Your task to perform on an android device: choose inbox layout in the gmail app Image 0: 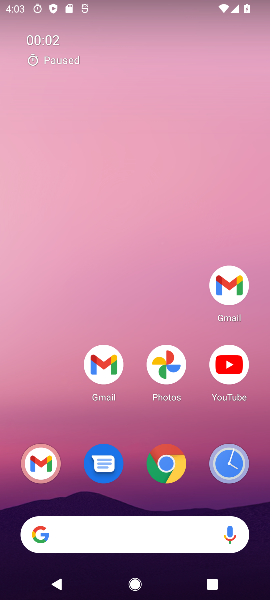
Step 0: press back button
Your task to perform on an android device: choose inbox layout in the gmail app Image 1: 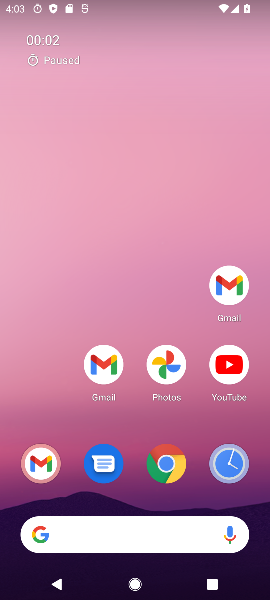
Step 1: drag from (186, 511) to (109, 215)
Your task to perform on an android device: choose inbox layout in the gmail app Image 2: 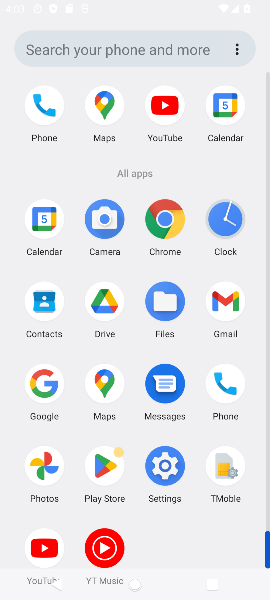
Step 2: drag from (154, 421) to (149, 256)
Your task to perform on an android device: choose inbox layout in the gmail app Image 3: 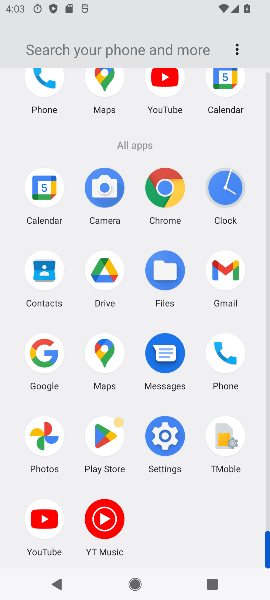
Step 3: drag from (168, 456) to (157, 240)
Your task to perform on an android device: choose inbox layout in the gmail app Image 4: 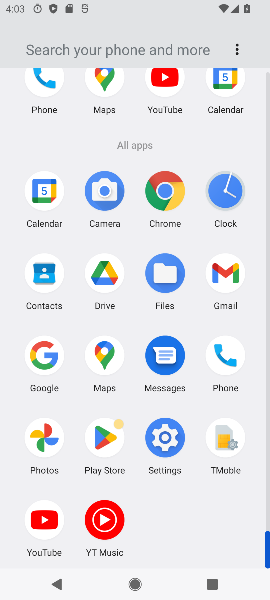
Step 4: click (213, 270)
Your task to perform on an android device: choose inbox layout in the gmail app Image 5: 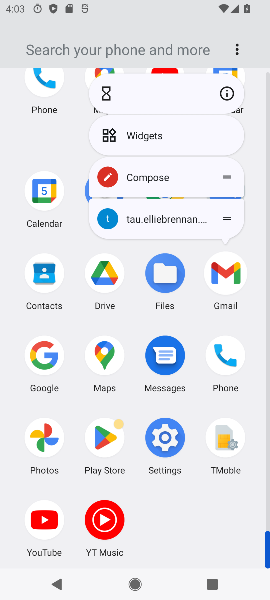
Step 5: click (213, 270)
Your task to perform on an android device: choose inbox layout in the gmail app Image 6: 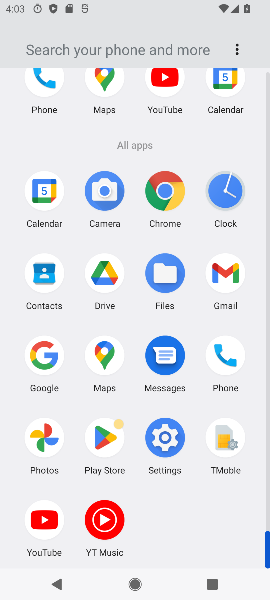
Step 6: click (213, 270)
Your task to perform on an android device: choose inbox layout in the gmail app Image 7: 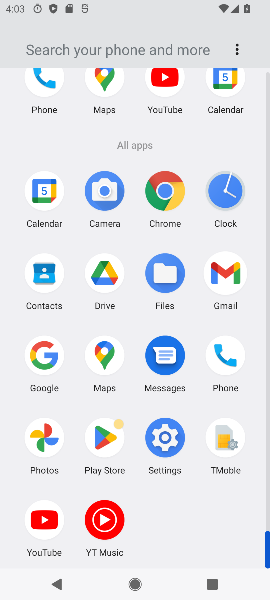
Step 7: click (214, 270)
Your task to perform on an android device: choose inbox layout in the gmail app Image 8: 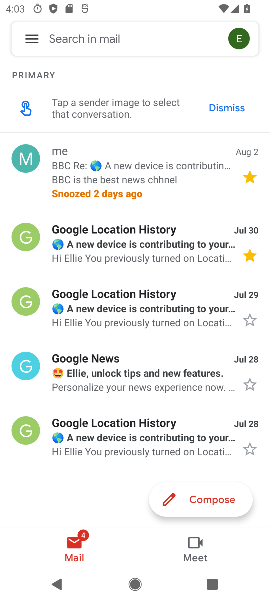
Step 8: click (216, 272)
Your task to perform on an android device: choose inbox layout in the gmail app Image 9: 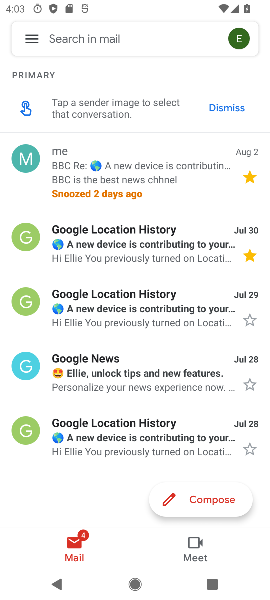
Step 9: click (227, 273)
Your task to perform on an android device: choose inbox layout in the gmail app Image 10: 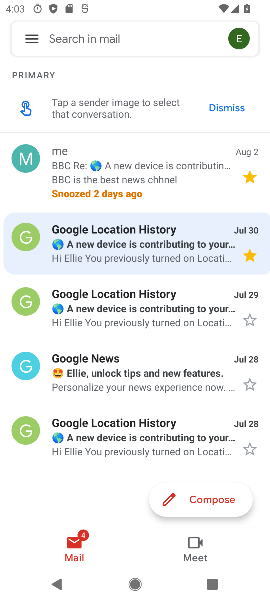
Step 10: click (228, 272)
Your task to perform on an android device: choose inbox layout in the gmail app Image 11: 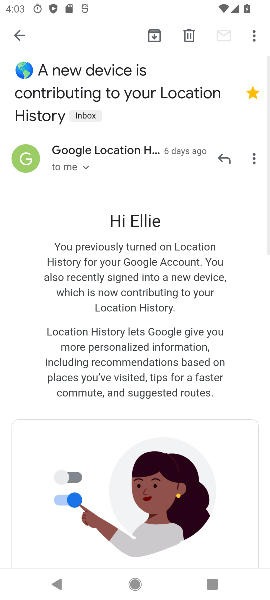
Step 11: click (17, 38)
Your task to perform on an android device: choose inbox layout in the gmail app Image 12: 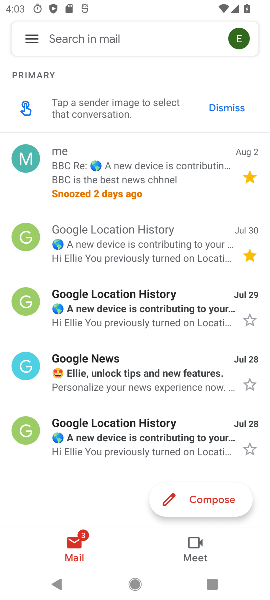
Step 12: click (41, 38)
Your task to perform on an android device: choose inbox layout in the gmail app Image 13: 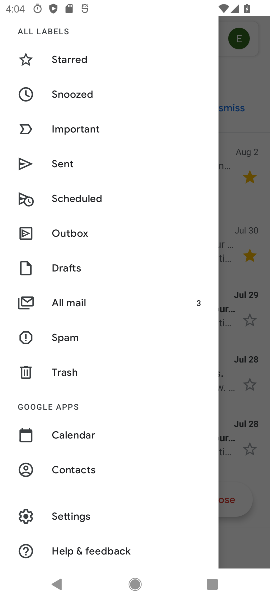
Step 13: click (67, 307)
Your task to perform on an android device: choose inbox layout in the gmail app Image 14: 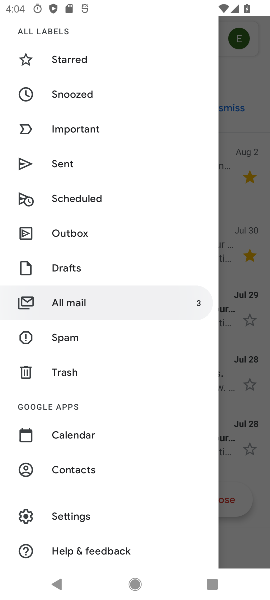
Step 14: click (68, 307)
Your task to perform on an android device: choose inbox layout in the gmail app Image 15: 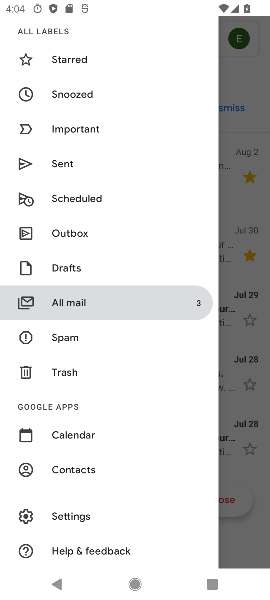
Step 15: click (70, 517)
Your task to perform on an android device: choose inbox layout in the gmail app Image 16: 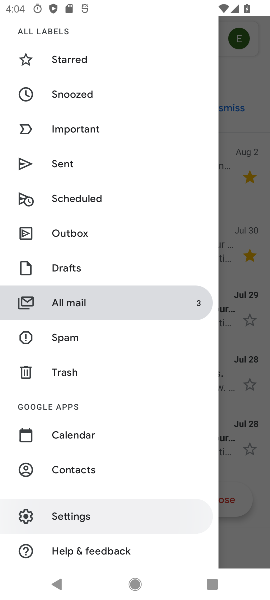
Step 16: click (72, 516)
Your task to perform on an android device: choose inbox layout in the gmail app Image 17: 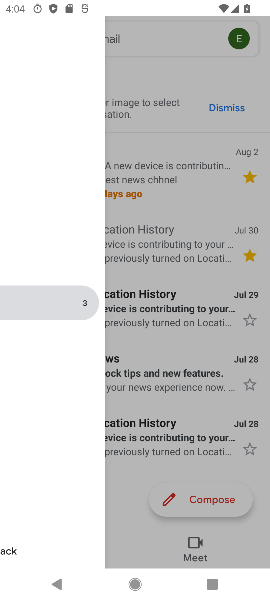
Step 17: click (72, 516)
Your task to perform on an android device: choose inbox layout in the gmail app Image 18: 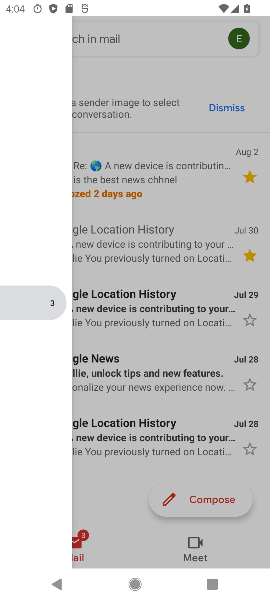
Step 18: click (72, 516)
Your task to perform on an android device: choose inbox layout in the gmail app Image 19: 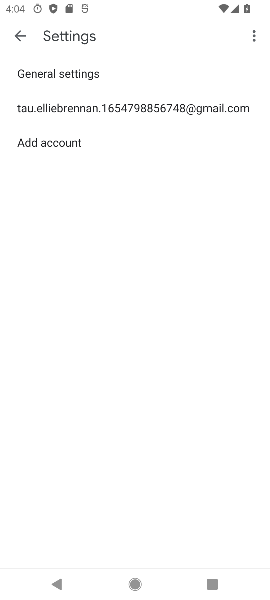
Step 19: click (82, 116)
Your task to perform on an android device: choose inbox layout in the gmail app Image 20: 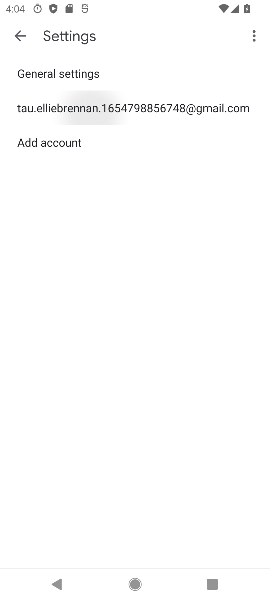
Step 20: click (84, 107)
Your task to perform on an android device: choose inbox layout in the gmail app Image 21: 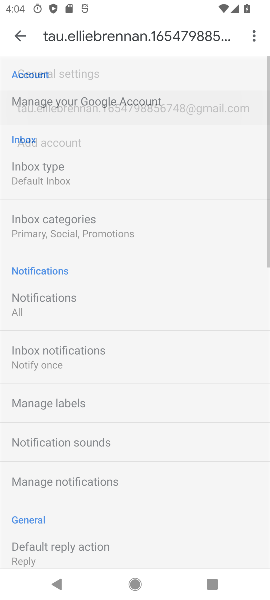
Step 21: click (85, 107)
Your task to perform on an android device: choose inbox layout in the gmail app Image 22: 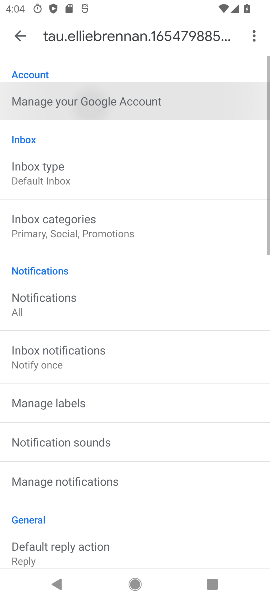
Step 22: click (87, 108)
Your task to perform on an android device: choose inbox layout in the gmail app Image 23: 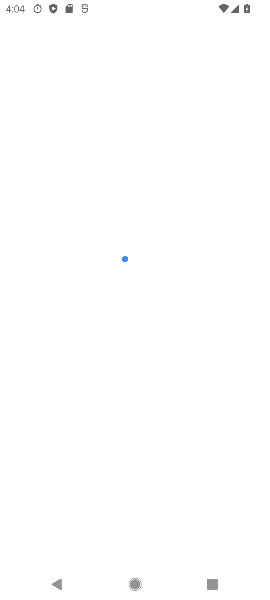
Step 23: task complete